Your task to perform on an android device: Open Reddit.com Image 0: 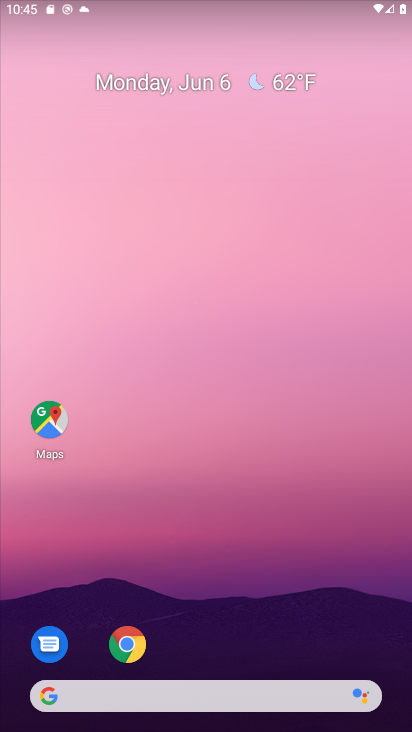
Step 0: click (181, 282)
Your task to perform on an android device: Open Reddit.com Image 1: 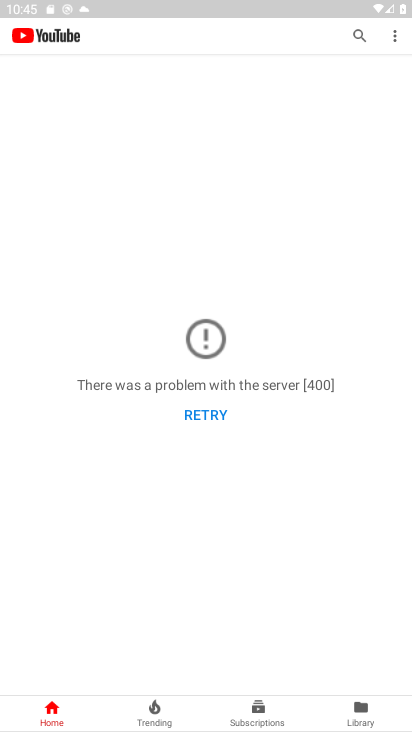
Step 1: press home button
Your task to perform on an android device: Open Reddit.com Image 2: 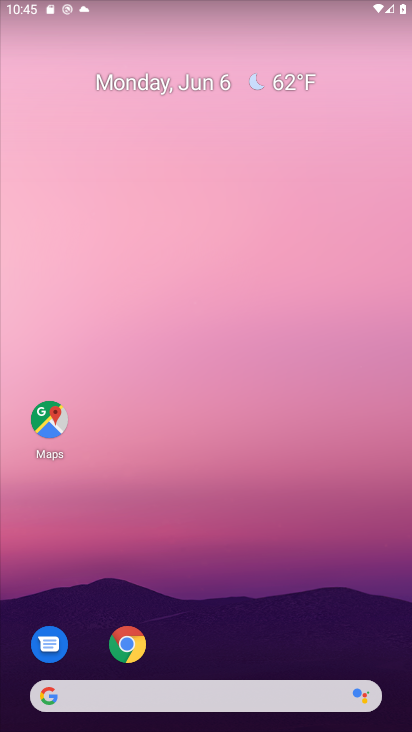
Step 2: drag from (136, 619) to (205, 347)
Your task to perform on an android device: Open Reddit.com Image 3: 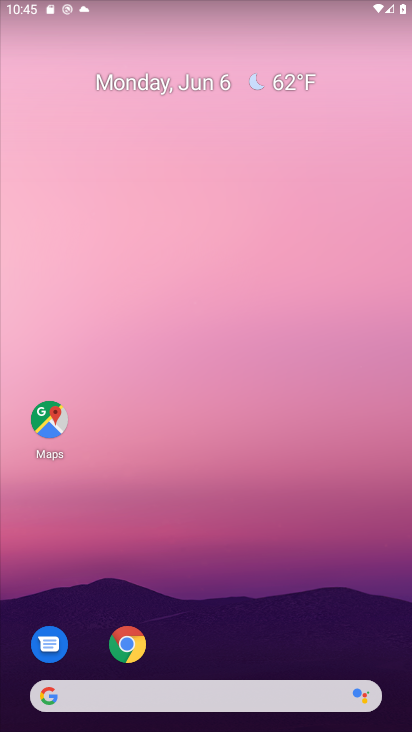
Step 3: click (239, 256)
Your task to perform on an android device: Open Reddit.com Image 4: 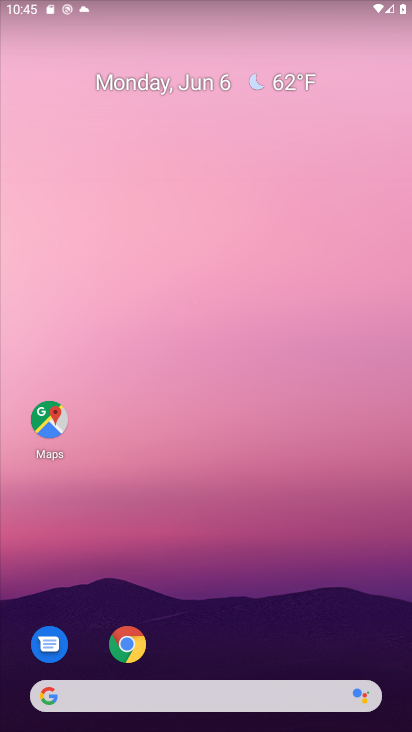
Step 4: click (265, 170)
Your task to perform on an android device: Open Reddit.com Image 5: 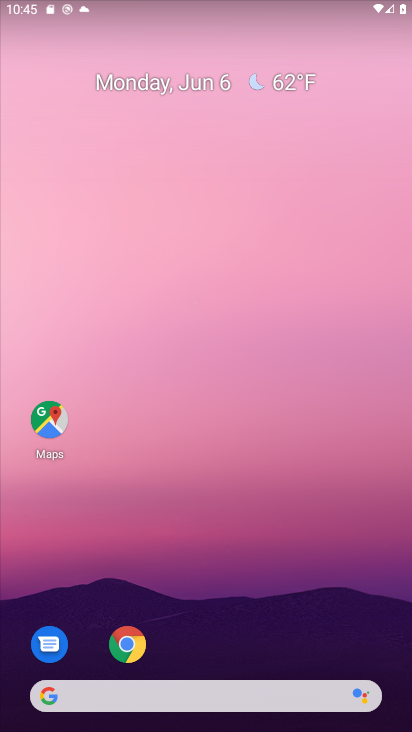
Step 5: drag from (204, 446) to (204, 311)
Your task to perform on an android device: Open Reddit.com Image 6: 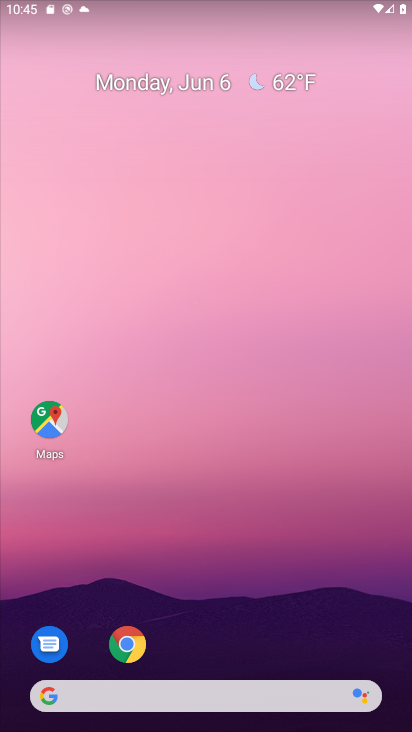
Step 6: drag from (229, 678) to (305, 65)
Your task to perform on an android device: Open Reddit.com Image 7: 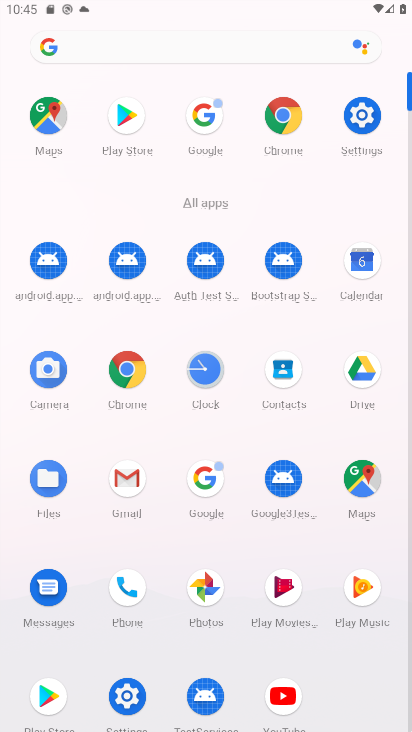
Step 7: click (210, 477)
Your task to perform on an android device: Open Reddit.com Image 8: 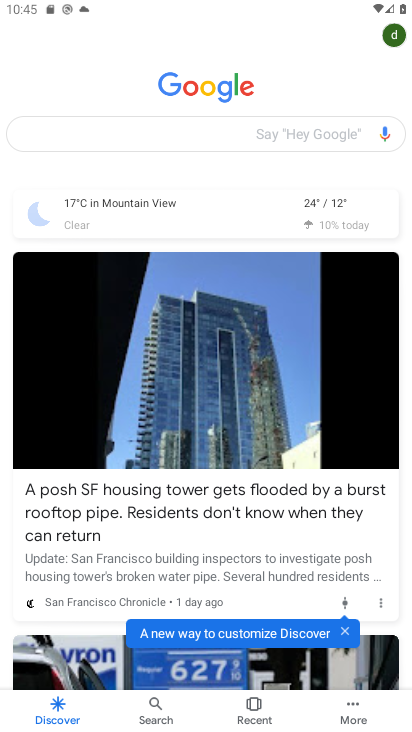
Step 8: click (190, 132)
Your task to perform on an android device: Open Reddit.com Image 9: 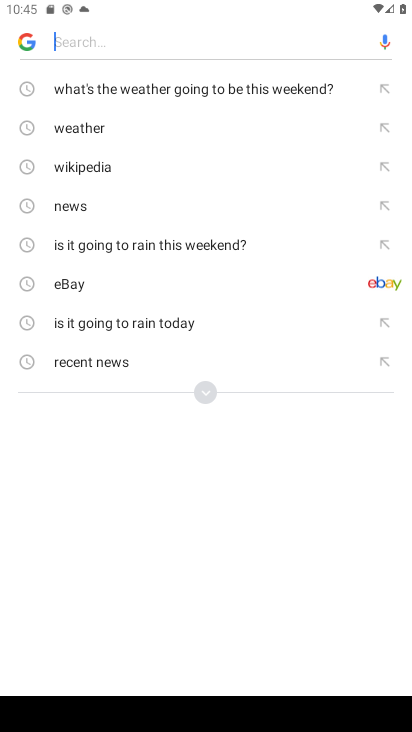
Step 9: click (209, 391)
Your task to perform on an android device: Open Reddit.com Image 10: 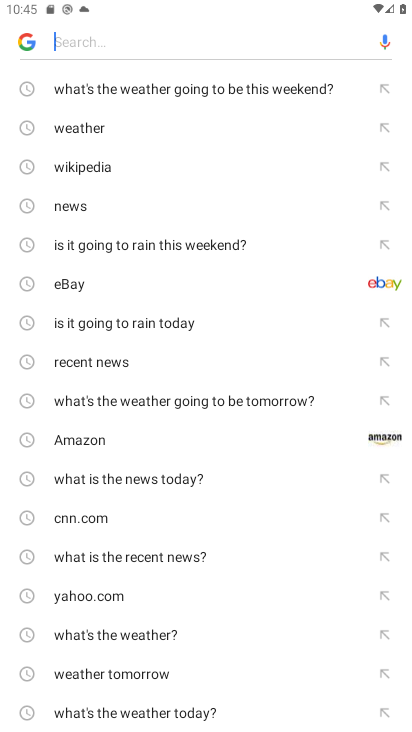
Step 10: drag from (114, 662) to (122, 324)
Your task to perform on an android device: Open Reddit.com Image 11: 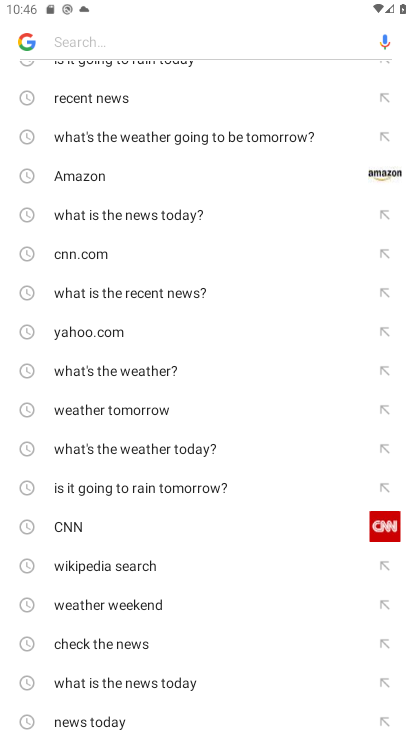
Step 11: drag from (144, 672) to (218, 302)
Your task to perform on an android device: Open Reddit.com Image 12: 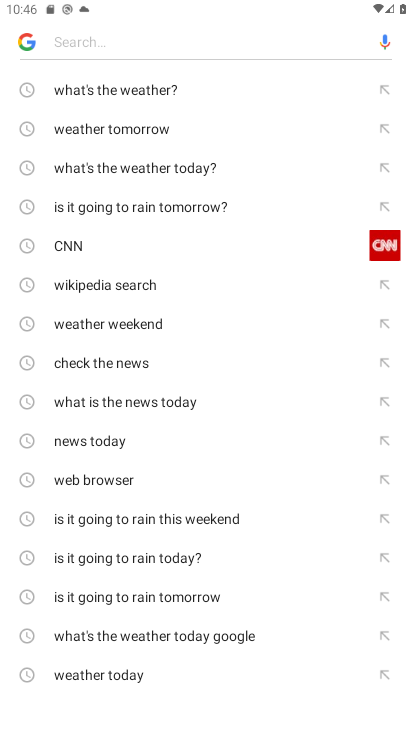
Step 12: drag from (112, 97) to (98, 561)
Your task to perform on an android device: Open Reddit.com Image 13: 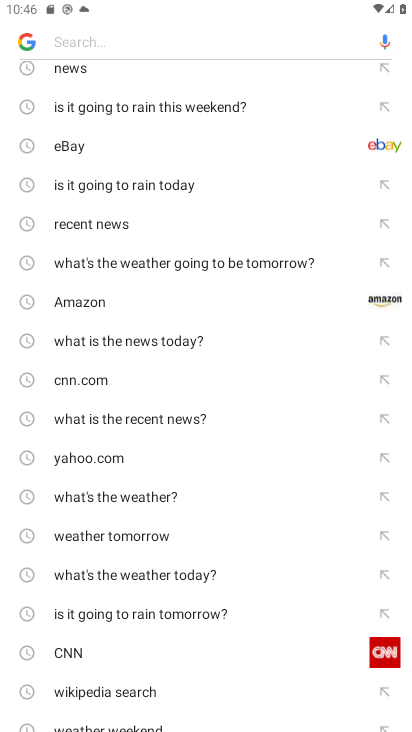
Step 13: drag from (174, 151) to (214, 607)
Your task to perform on an android device: Open Reddit.com Image 14: 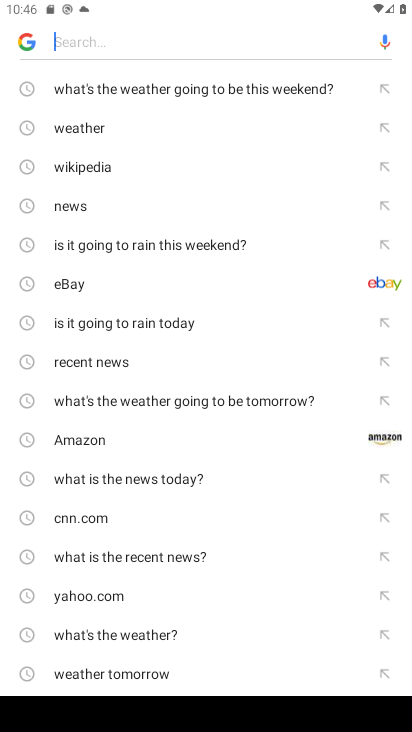
Step 14: drag from (122, 636) to (131, 281)
Your task to perform on an android device: Open Reddit.com Image 15: 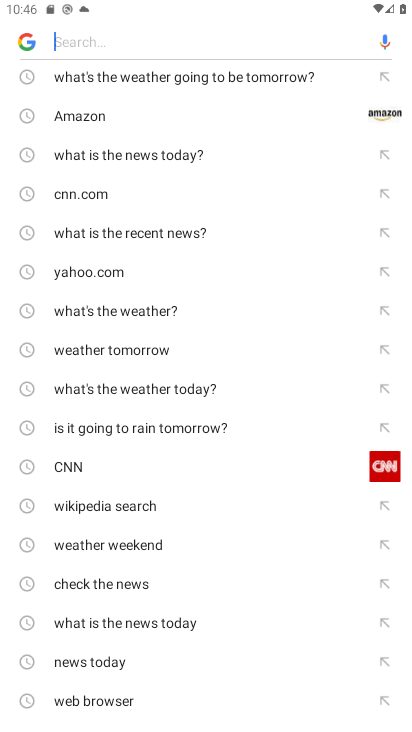
Step 15: drag from (138, 597) to (138, 364)
Your task to perform on an android device: Open Reddit.com Image 16: 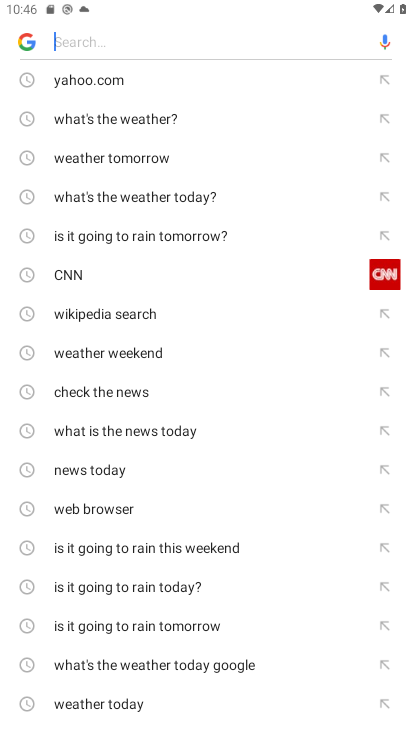
Step 16: drag from (159, 714) to (183, 329)
Your task to perform on an android device: Open Reddit.com Image 17: 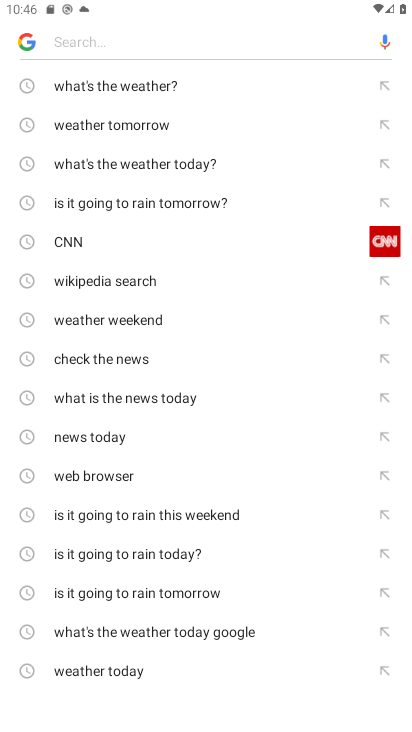
Step 17: click (77, 38)
Your task to perform on an android device: Open Reddit.com Image 18: 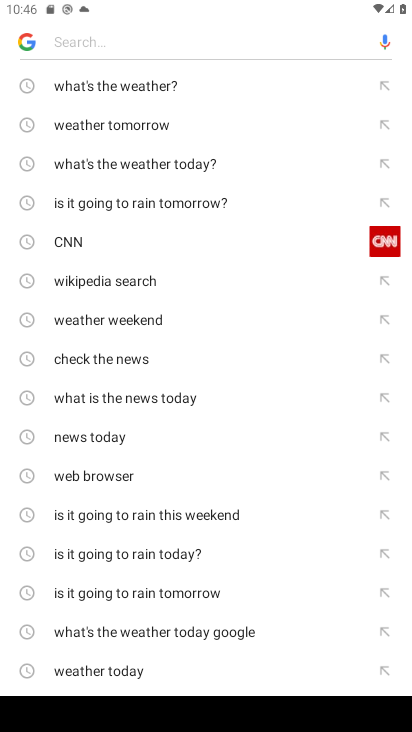
Step 18: type "reddit.com"
Your task to perform on an android device: Open Reddit.com Image 19: 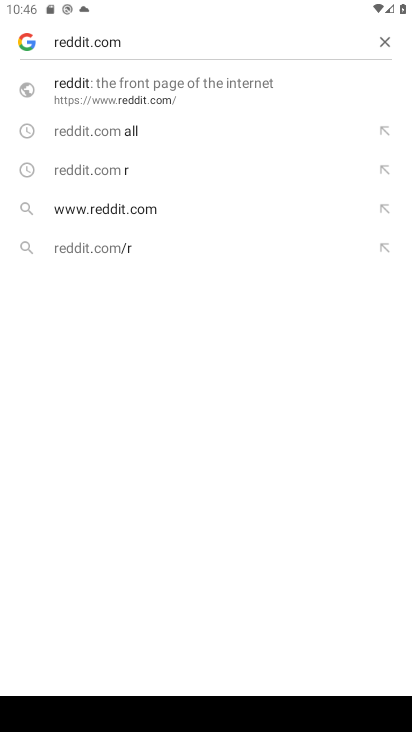
Step 19: click (151, 100)
Your task to perform on an android device: Open Reddit.com Image 20: 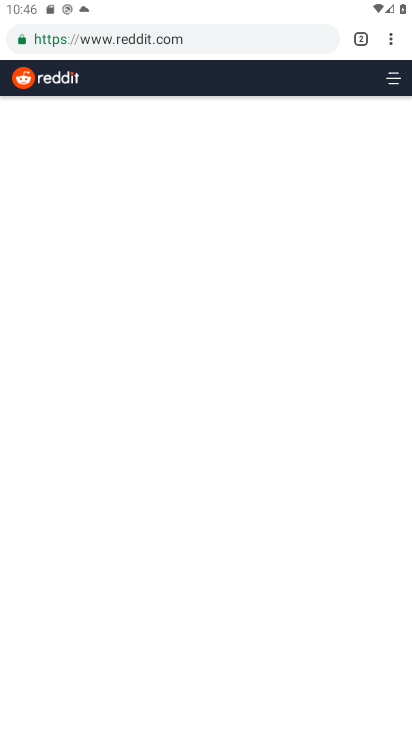
Step 20: task complete